Your task to perform on an android device: change text size in settings app Image 0: 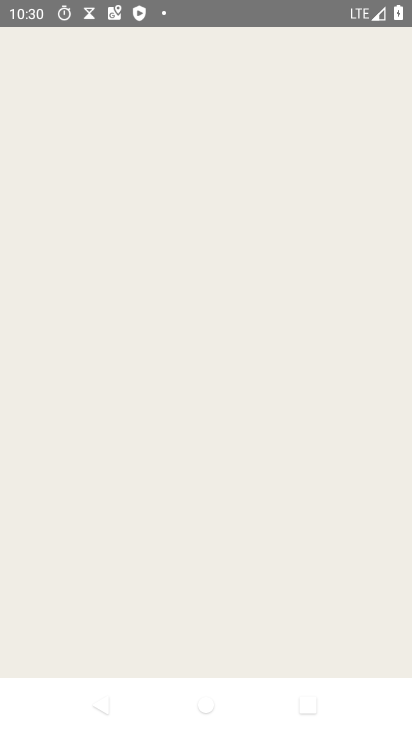
Step 0: press home button
Your task to perform on an android device: change text size in settings app Image 1: 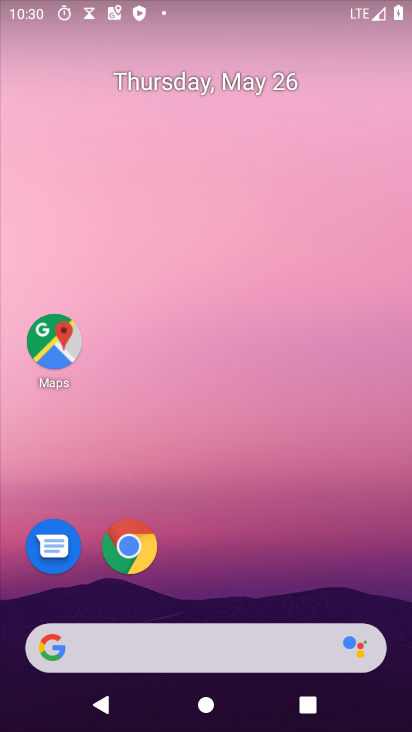
Step 1: drag from (382, 548) to (391, 158)
Your task to perform on an android device: change text size in settings app Image 2: 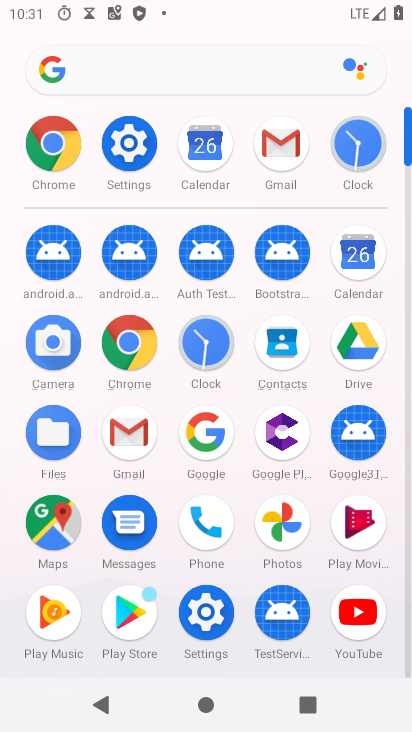
Step 2: click (213, 618)
Your task to perform on an android device: change text size in settings app Image 3: 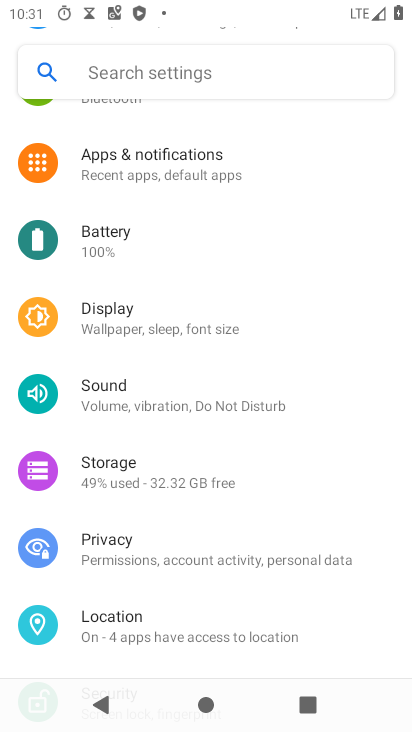
Step 3: drag from (325, 610) to (336, 278)
Your task to perform on an android device: change text size in settings app Image 4: 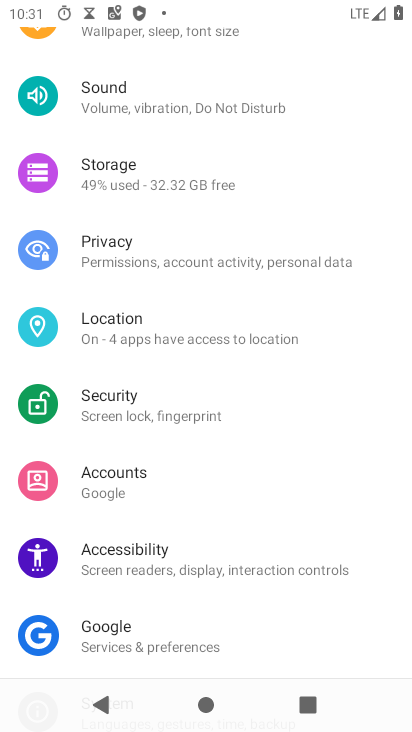
Step 4: drag from (264, 611) to (283, 414)
Your task to perform on an android device: change text size in settings app Image 5: 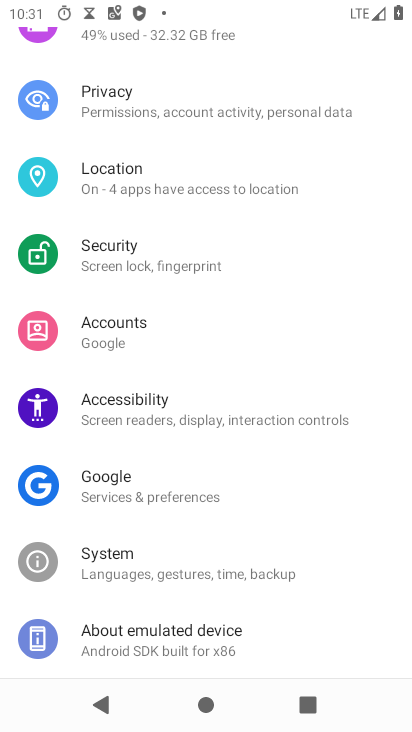
Step 5: drag from (188, 166) to (261, 507)
Your task to perform on an android device: change text size in settings app Image 6: 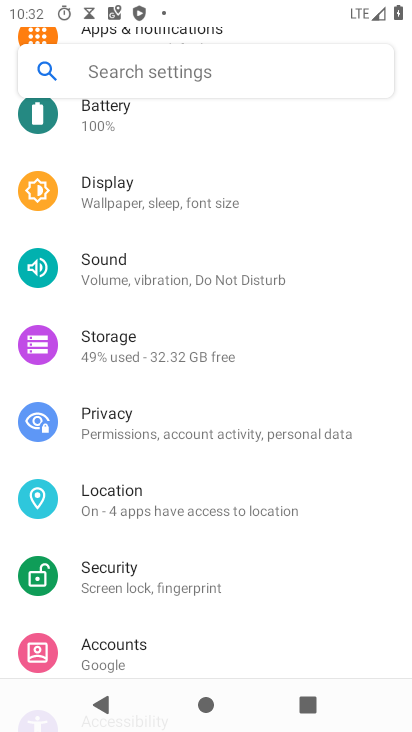
Step 6: click (153, 219)
Your task to perform on an android device: change text size in settings app Image 7: 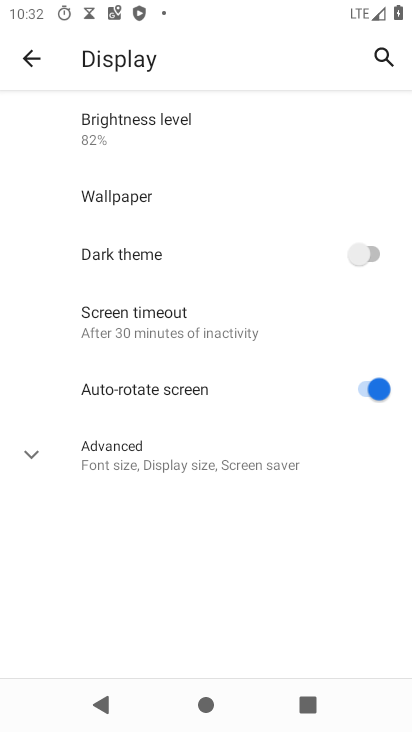
Step 7: click (58, 459)
Your task to perform on an android device: change text size in settings app Image 8: 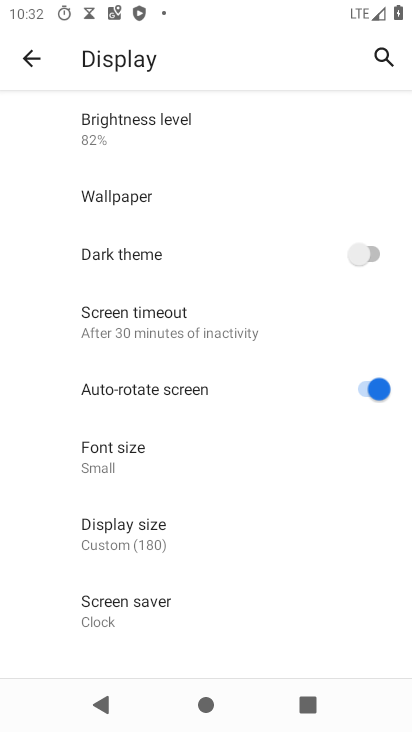
Step 8: click (140, 463)
Your task to perform on an android device: change text size in settings app Image 9: 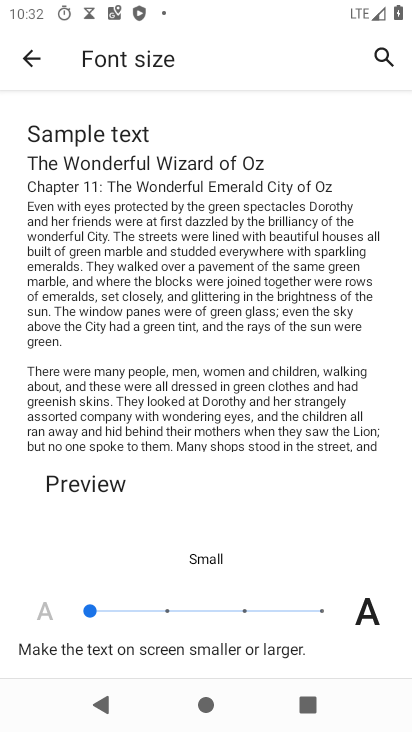
Step 9: click (130, 612)
Your task to perform on an android device: change text size in settings app Image 10: 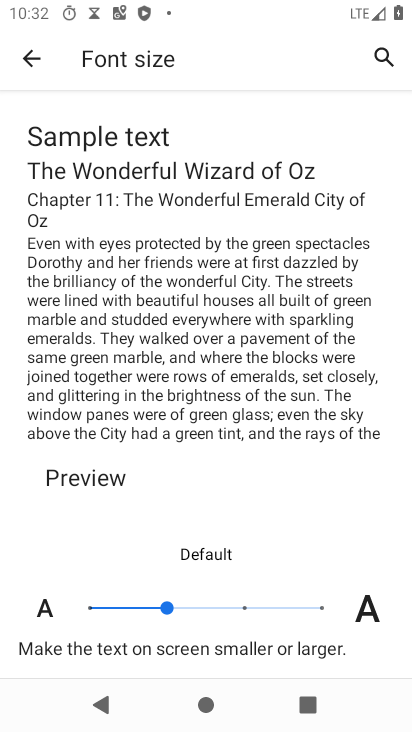
Step 10: task complete